Your task to perform on an android device: uninstall "Messenger Lite" Image 0: 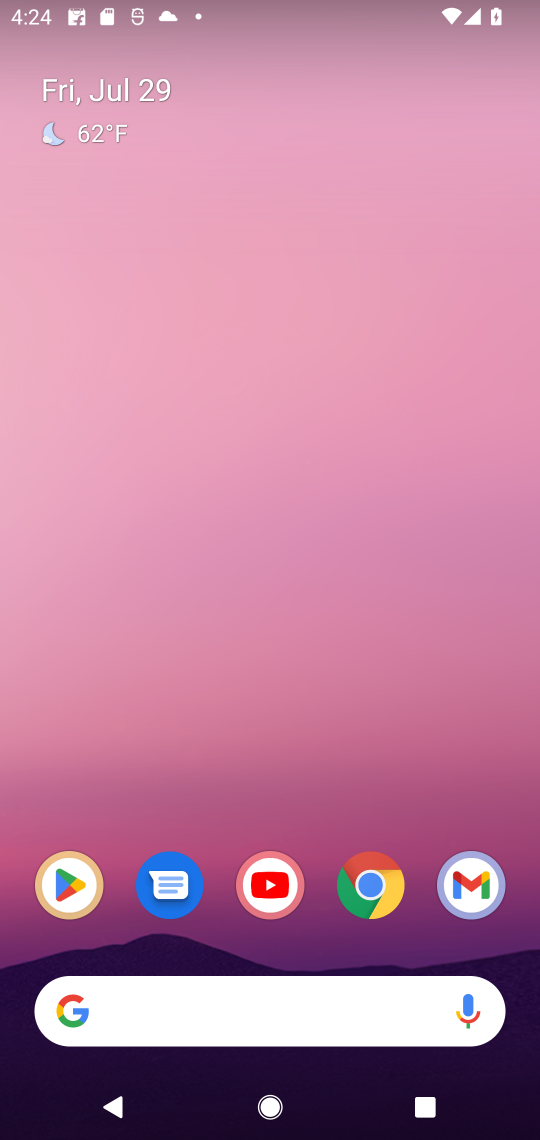
Step 0: click (78, 879)
Your task to perform on an android device: uninstall "Messenger Lite" Image 1: 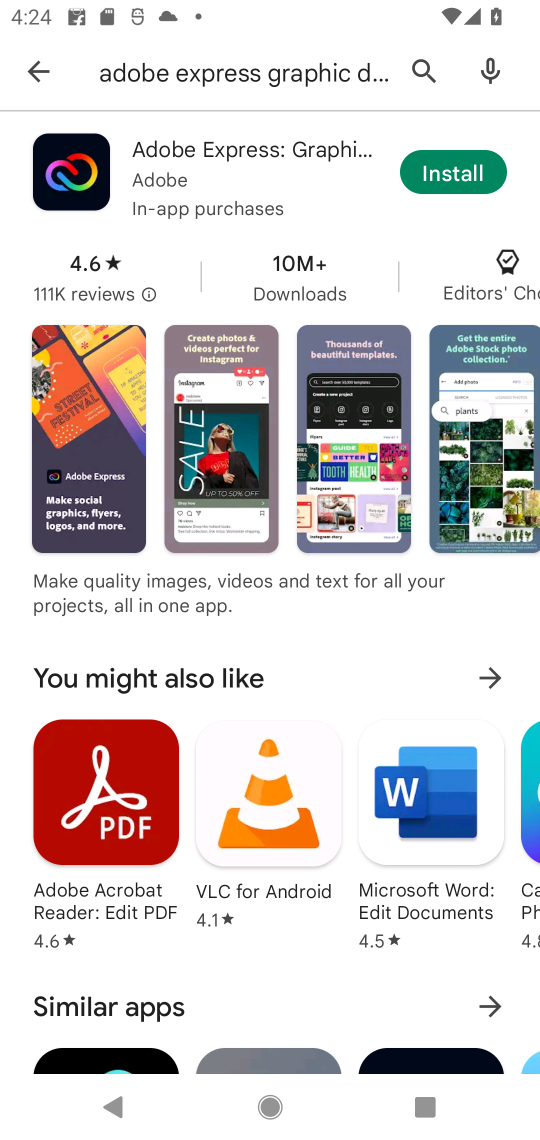
Step 1: click (412, 70)
Your task to perform on an android device: uninstall "Messenger Lite" Image 2: 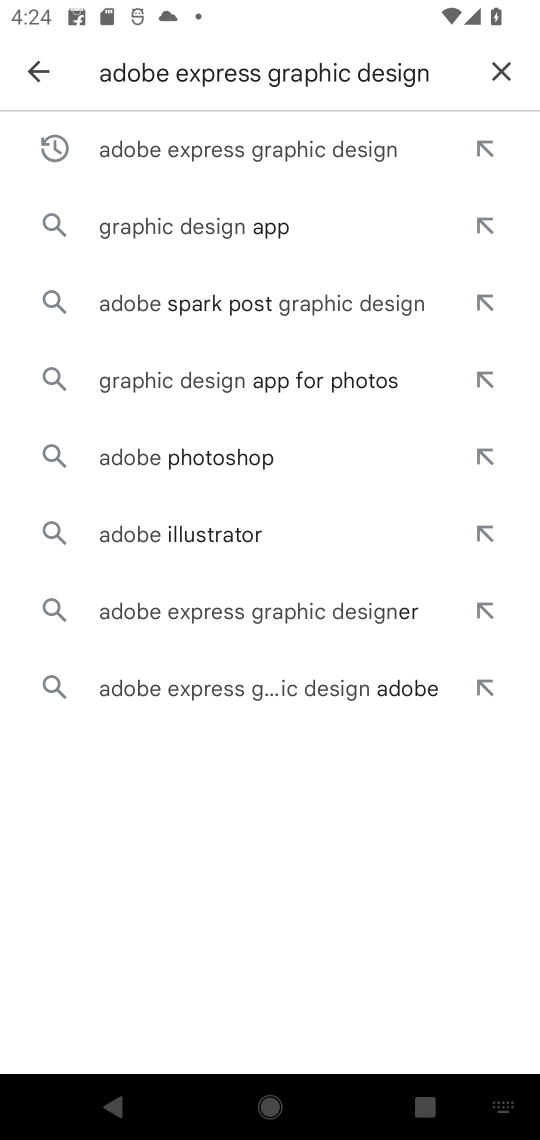
Step 2: click (501, 75)
Your task to perform on an android device: uninstall "Messenger Lite" Image 3: 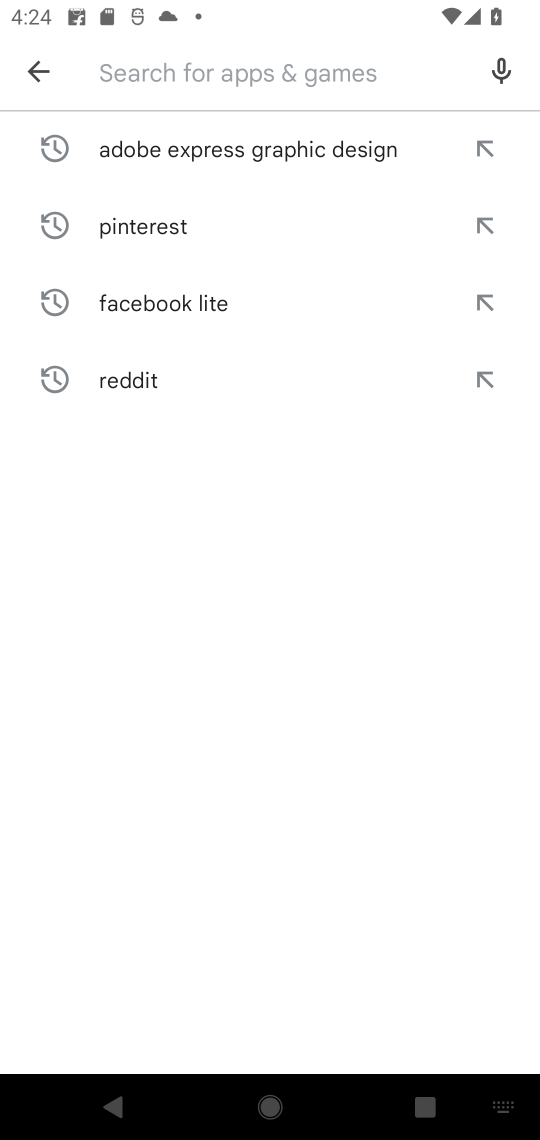
Step 3: type "Messenger Lite"
Your task to perform on an android device: uninstall "Messenger Lite" Image 4: 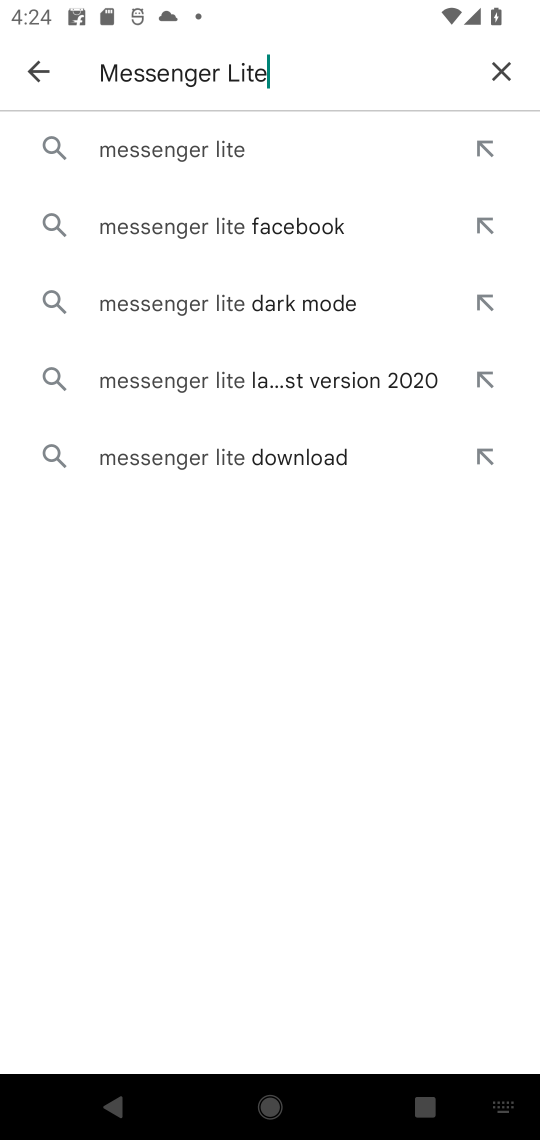
Step 4: click (102, 153)
Your task to perform on an android device: uninstall "Messenger Lite" Image 5: 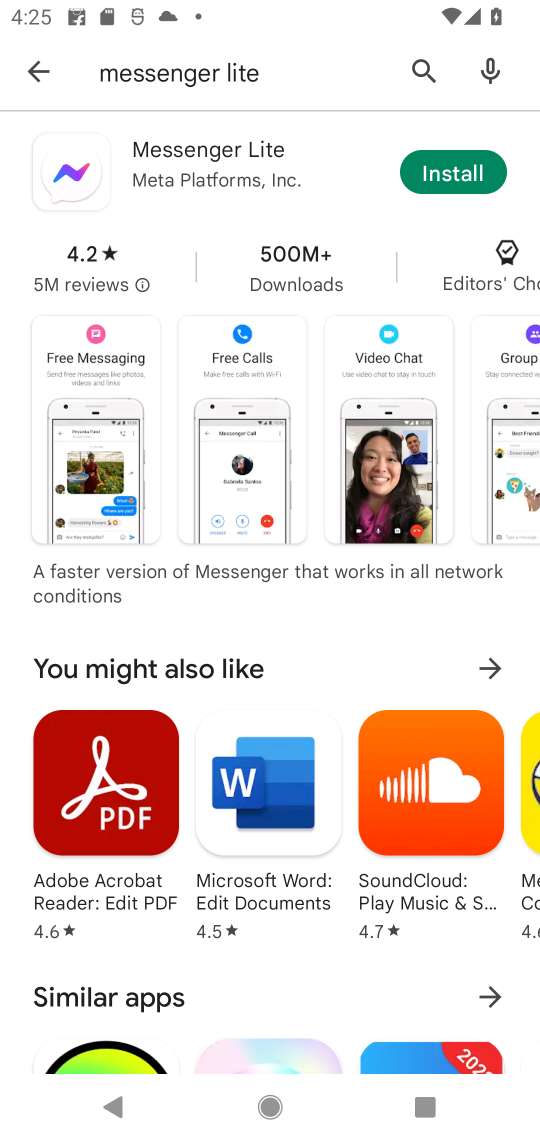
Step 5: task complete